Your task to perform on an android device: turn notification dots on Image 0: 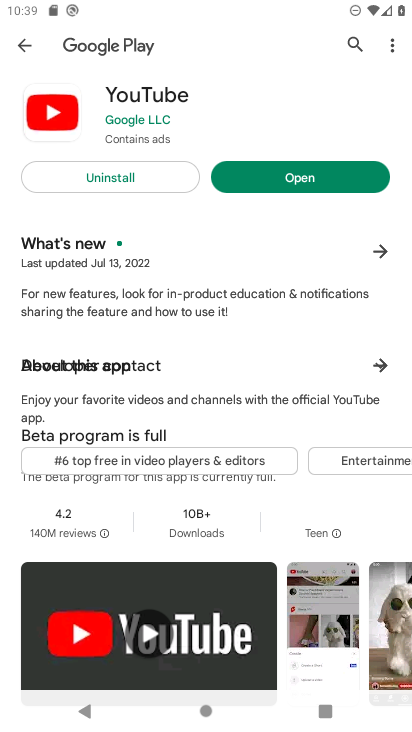
Step 0: press home button
Your task to perform on an android device: turn notification dots on Image 1: 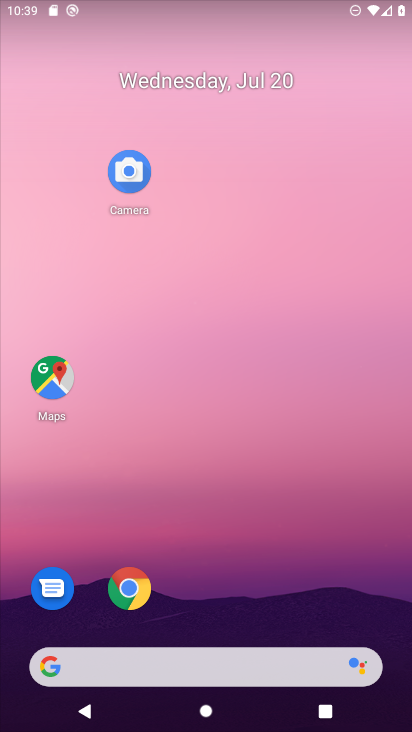
Step 1: drag from (250, 592) to (213, 119)
Your task to perform on an android device: turn notification dots on Image 2: 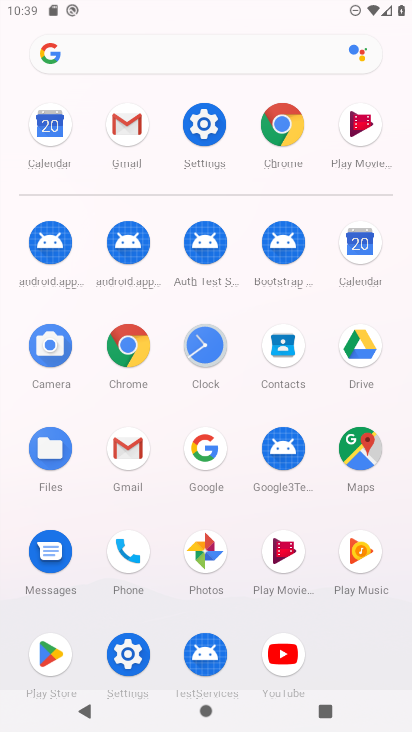
Step 2: click (207, 122)
Your task to perform on an android device: turn notification dots on Image 3: 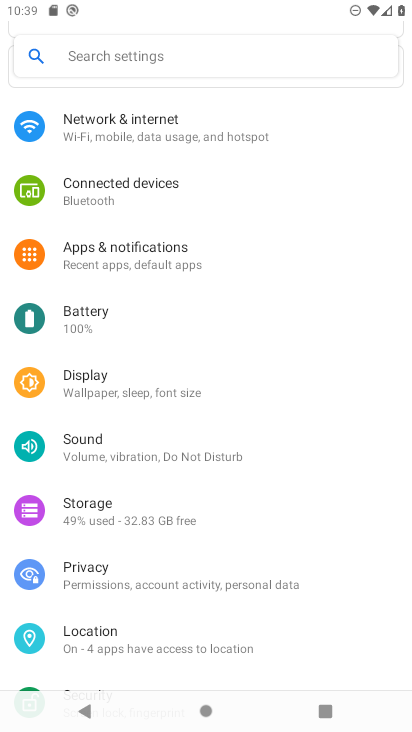
Step 3: click (122, 256)
Your task to perform on an android device: turn notification dots on Image 4: 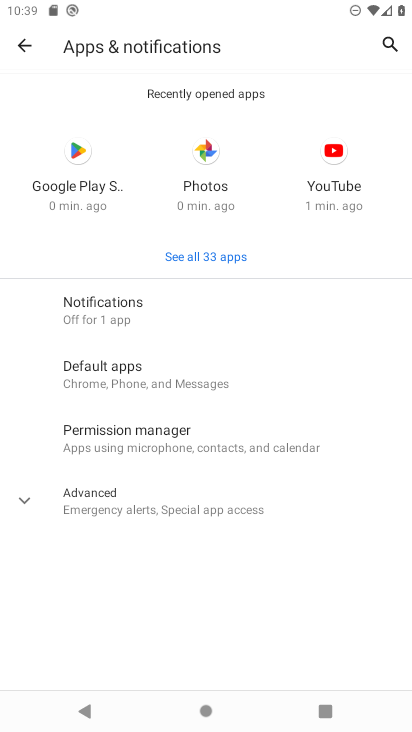
Step 4: click (100, 319)
Your task to perform on an android device: turn notification dots on Image 5: 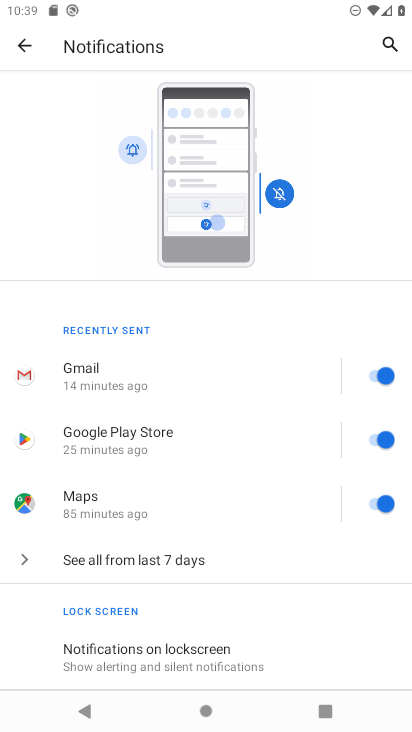
Step 5: drag from (279, 602) to (270, 211)
Your task to perform on an android device: turn notification dots on Image 6: 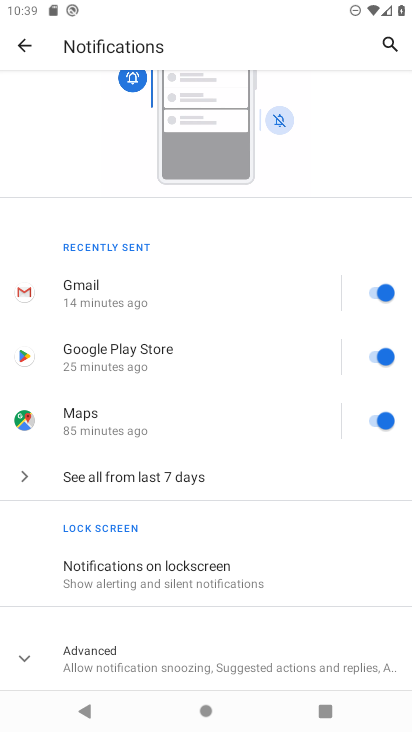
Step 6: click (28, 666)
Your task to perform on an android device: turn notification dots on Image 7: 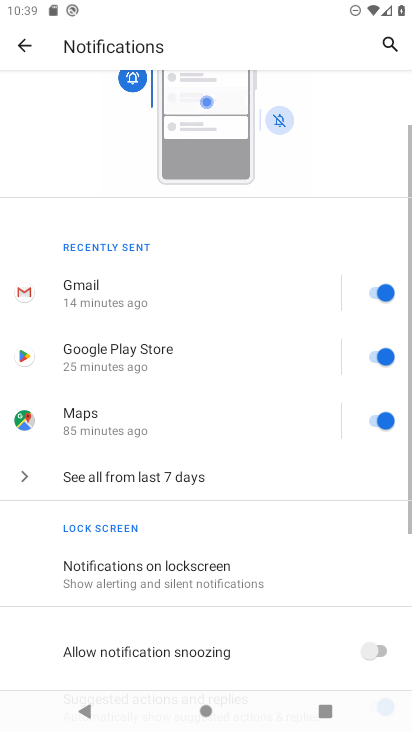
Step 7: task complete